Your task to perform on an android device: Open location settings Image 0: 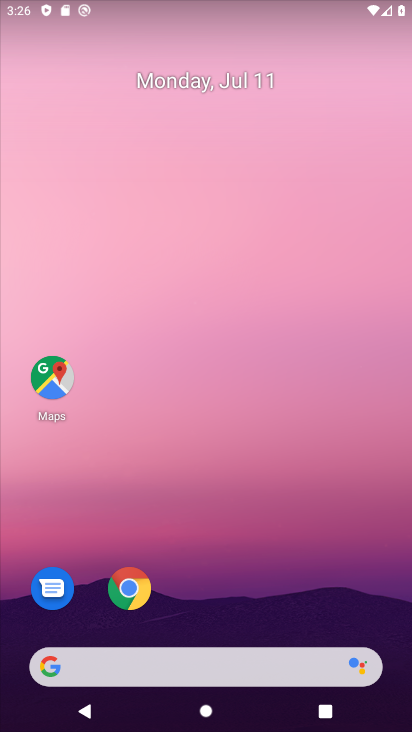
Step 0: drag from (197, 624) to (220, 12)
Your task to perform on an android device: Open location settings Image 1: 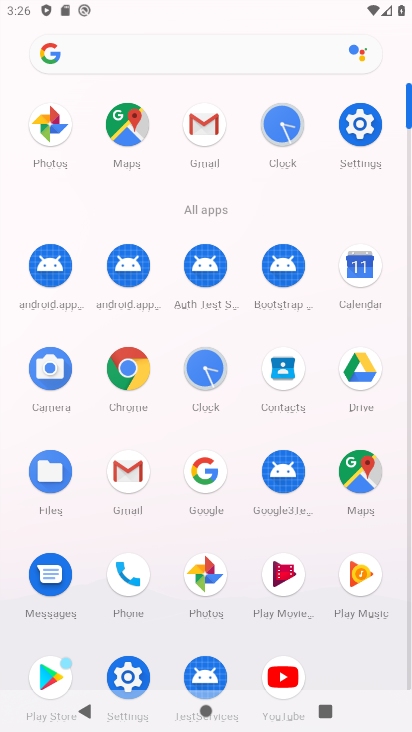
Step 1: click (366, 133)
Your task to perform on an android device: Open location settings Image 2: 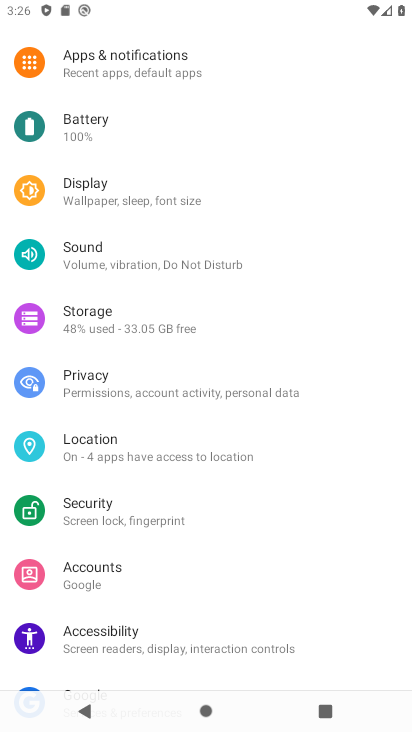
Step 2: click (92, 456)
Your task to perform on an android device: Open location settings Image 3: 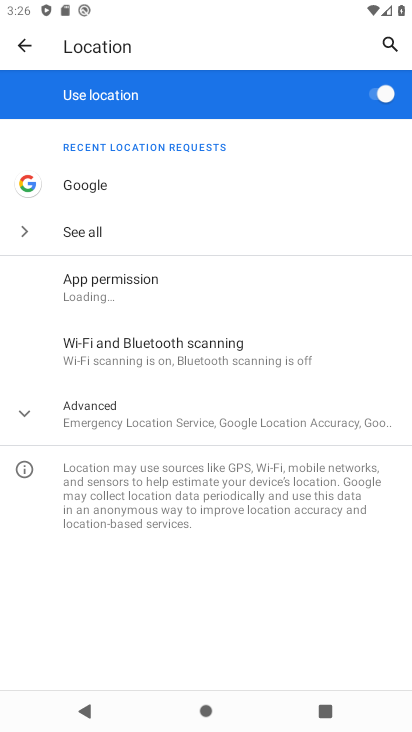
Step 3: task complete